Your task to perform on an android device: Open sound settings Image 0: 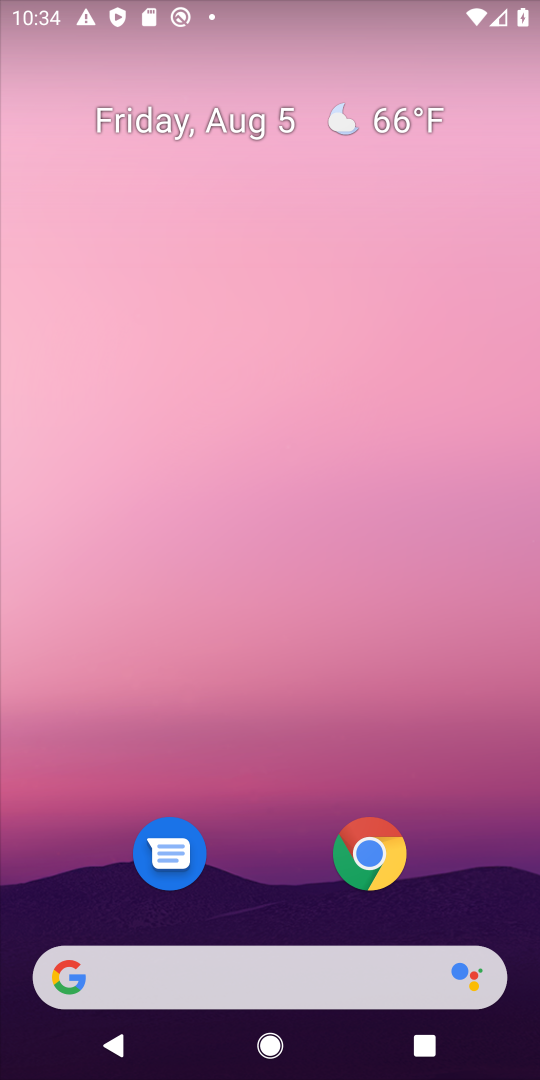
Step 0: drag from (275, 829) to (149, 235)
Your task to perform on an android device: Open sound settings Image 1: 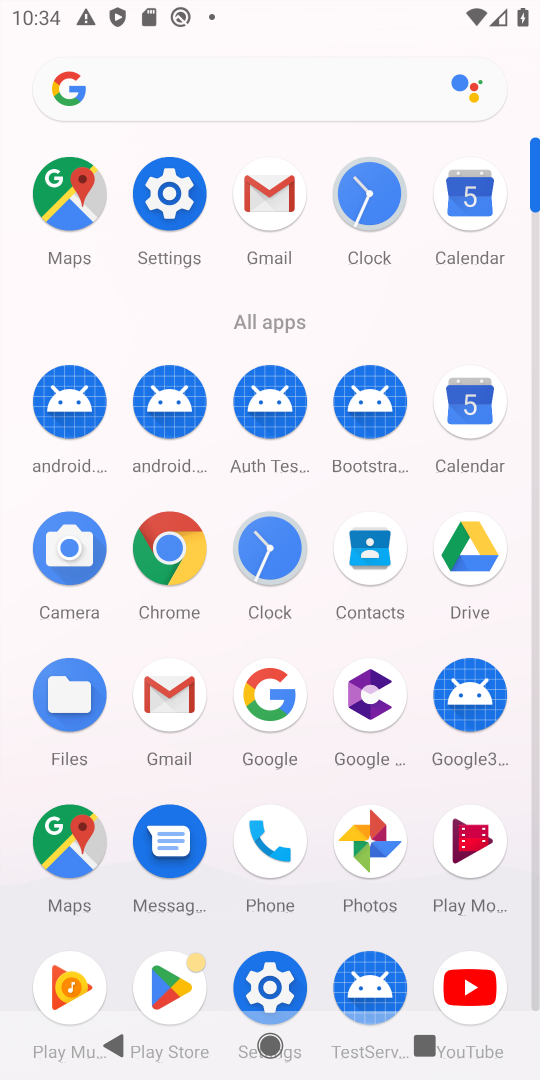
Step 1: click (259, 967)
Your task to perform on an android device: Open sound settings Image 2: 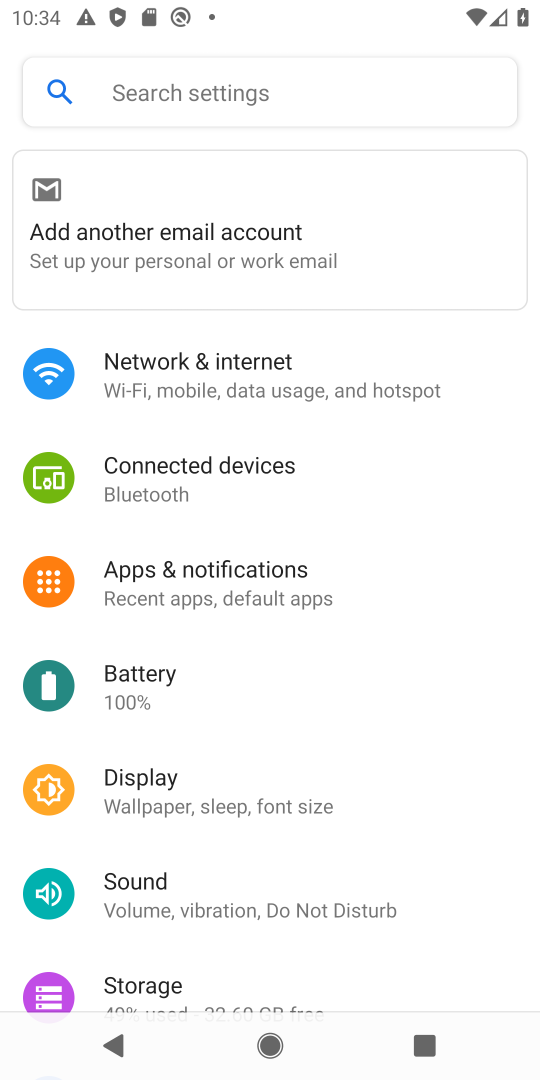
Step 2: click (185, 890)
Your task to perform on an android device: Open sound settings Image 3: 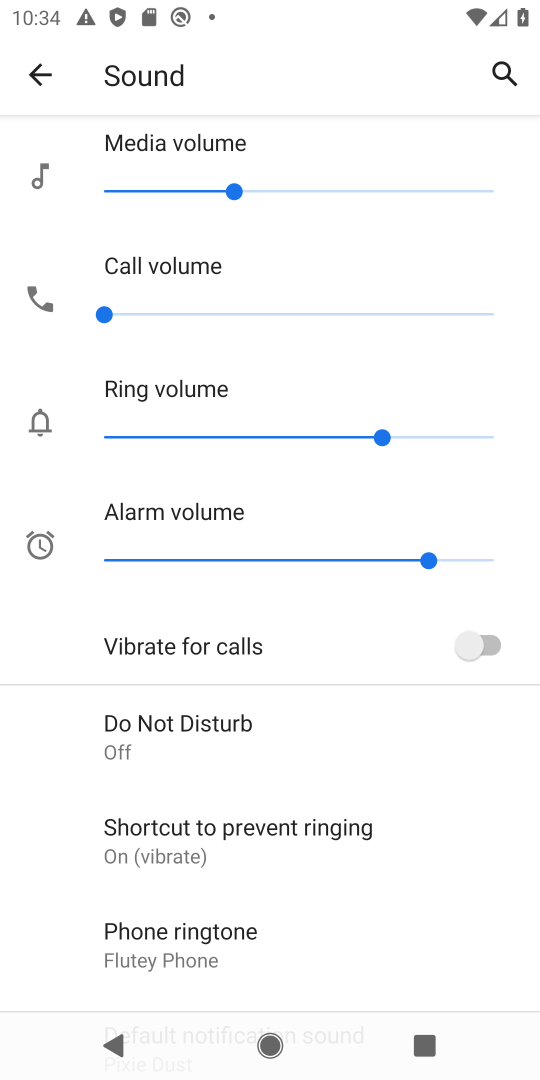
Step 3: task complete